Your task to perform on an android device: turn on location history Image 0: 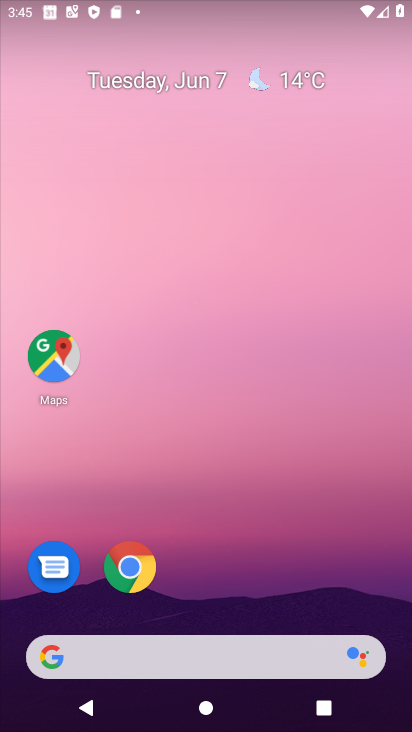
Step 0: drag from (224, 598) to (221, 207)
Your task to perform on an android device: turn on location history Image 1: 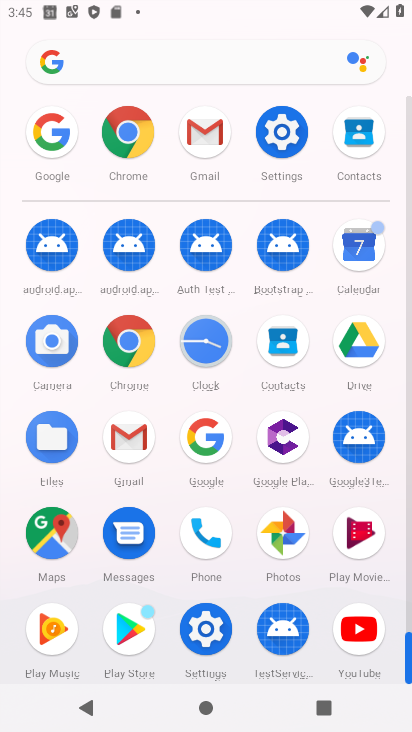
Step 1: click (272, 142)
Your task to perform on an android device: turn on location history Image 2: 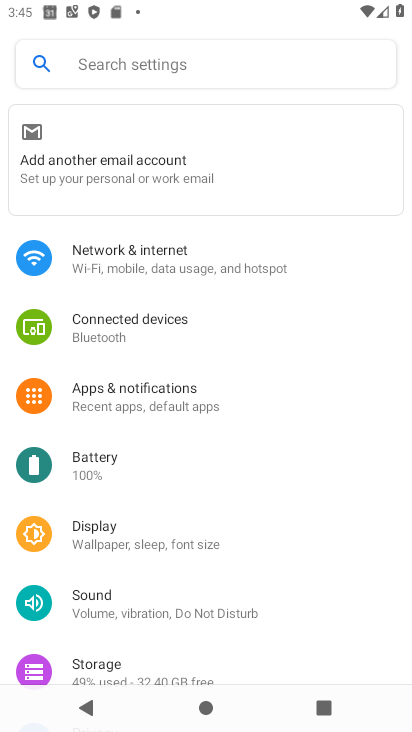
Step 2: drag from (156, 576) to (182, 345)
Your task to perform on an android device: turn on location history Image 3: 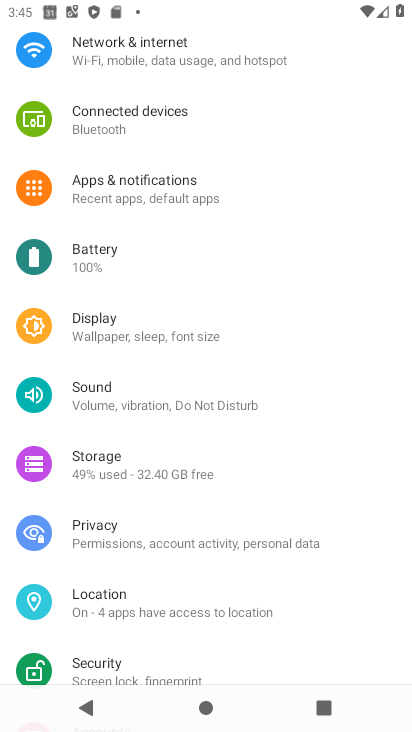
Step 3: click (149, 621)
Your task to perform on an android device: turn on location history Image 4: 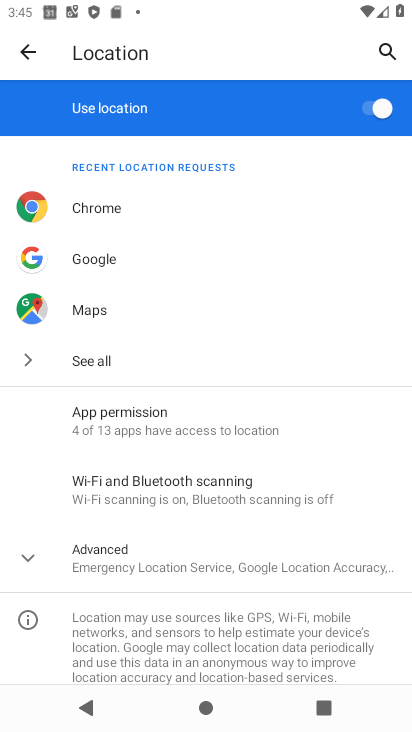
Step 4: click (221, 573)
Your task to perform on an android device: turn on location history Image 5: 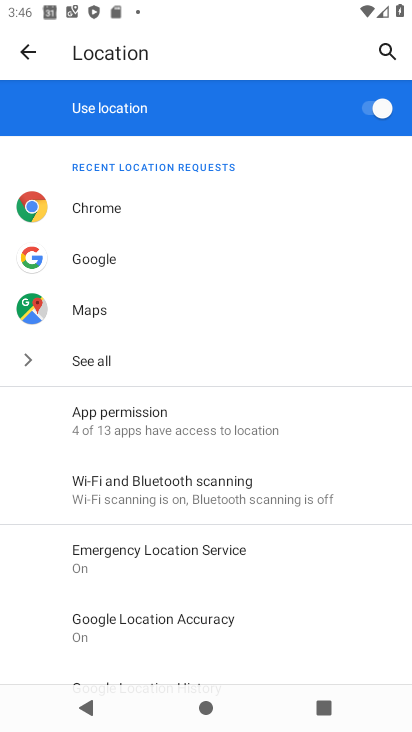
Step 5: drag from (259, 610) to (273, 420)
Your task to perform on an android device: turn on location history Image 6: 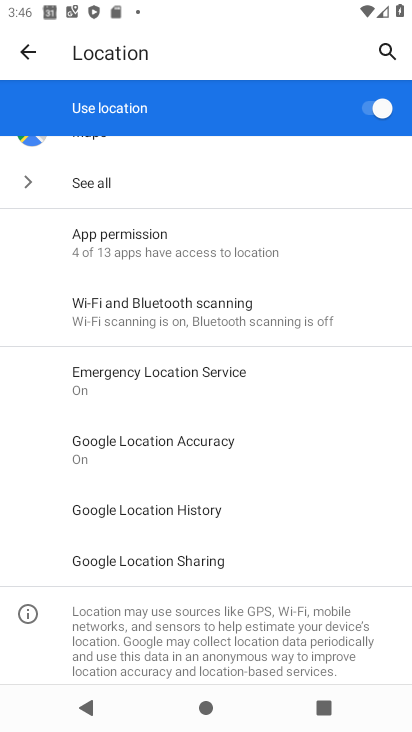
Step 6: click (225, 499)
Your task to perform on an android device: turn on location history Image 7: 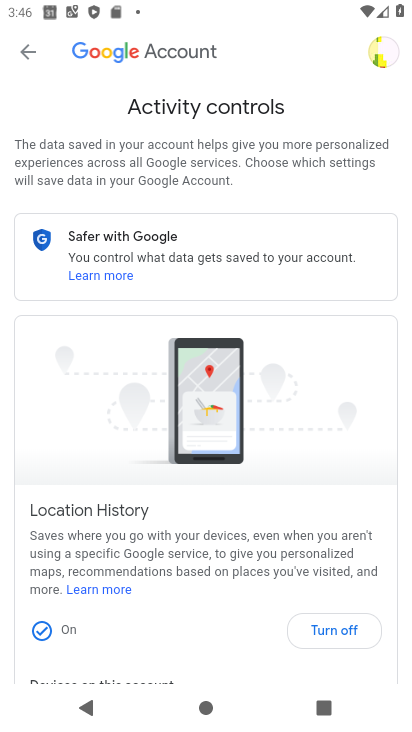
Step 7: task complete